Your task to perform on an android device: Search for vegetarian restaurants on Maps Image 0: 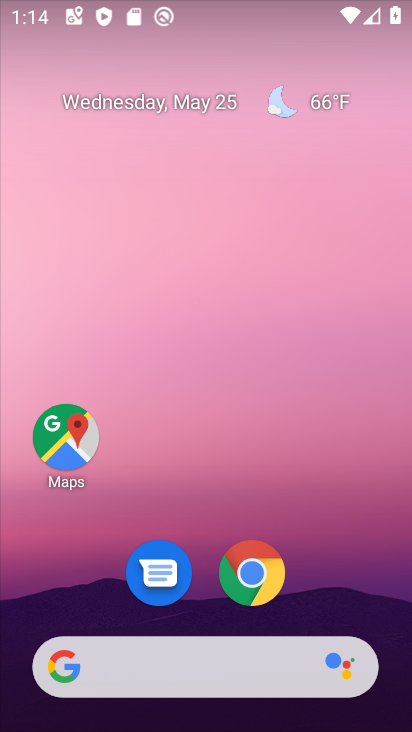
Step 0: click (67, 436)
Your task to perform on an android device: Search for vegetarian restaurants on Maps Image 1: 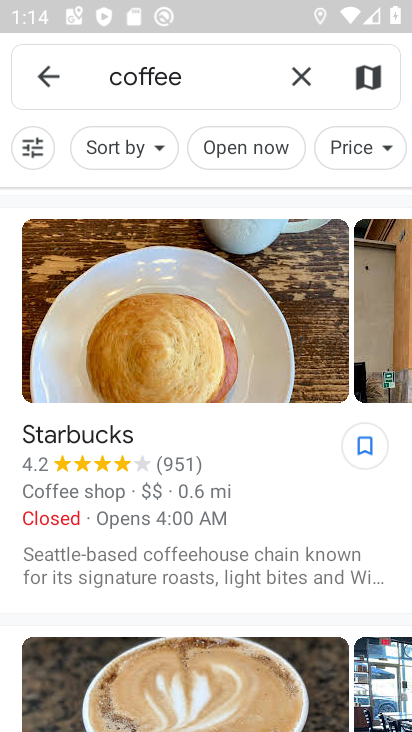
Step 1: click (300, 73)
Your task to perform on an android device: Search for vegetarian restaurants on Maps Image 2: 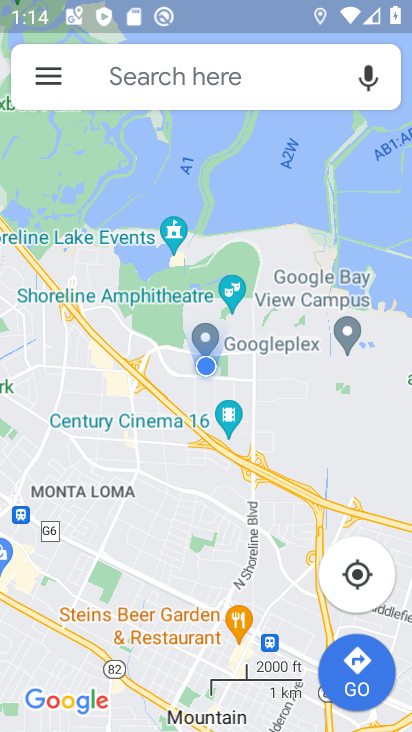
Step 2: click (180, 66)
Your task to perform on an android device: Search for vegetarian restaurants on Maps Image 3: 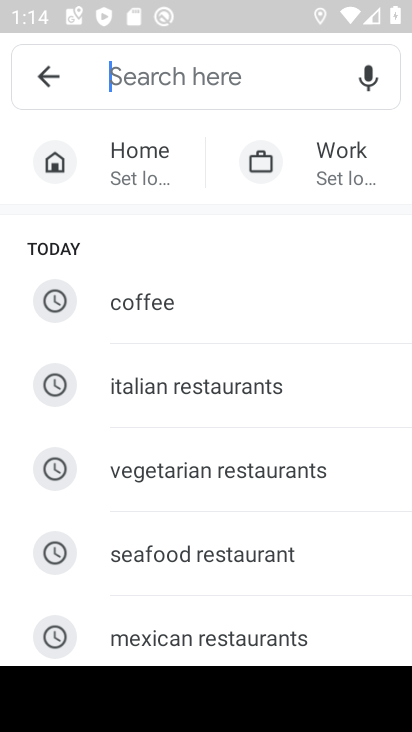
Step 3: type "vegetarian restaurants"
Your task to perform on an android device: Search for vegetarian restaurants on Maps Image 4: 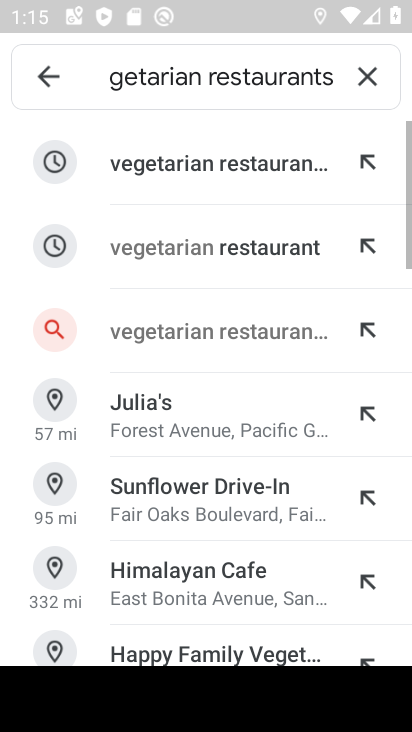
Step 4: click (170, 161)
Your task to perform on an android device: Search for vegetarian restaurants on Maps Image 5: 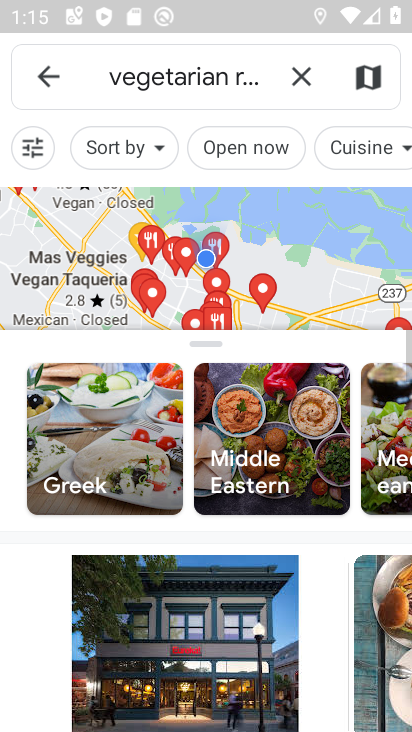
Step 5: task complete